Your task to perform on an android device: Set an alarm for 4pm Image 0: 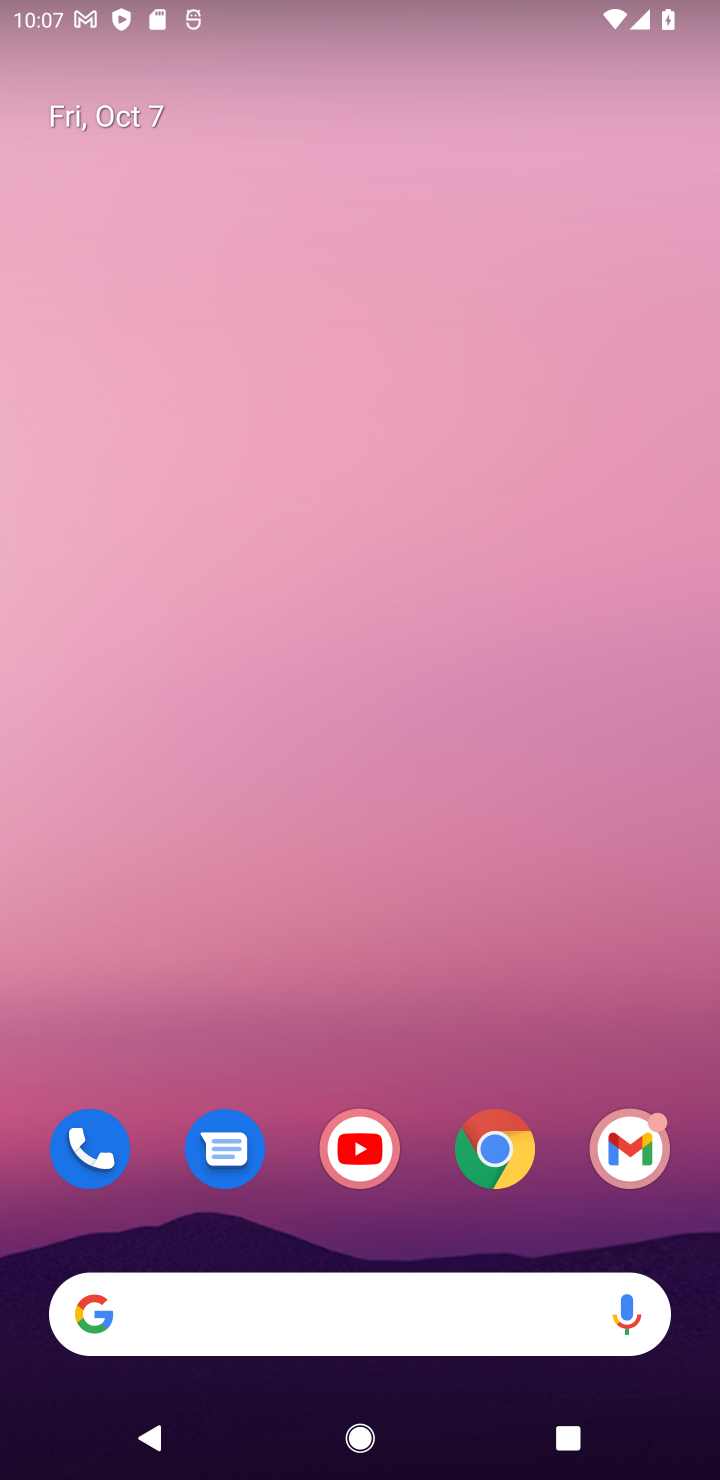
Step 0: drag from (278, 1253) to (248, 341)
Your task to perform on an android device: Set an alarm for 4pm Image 1: 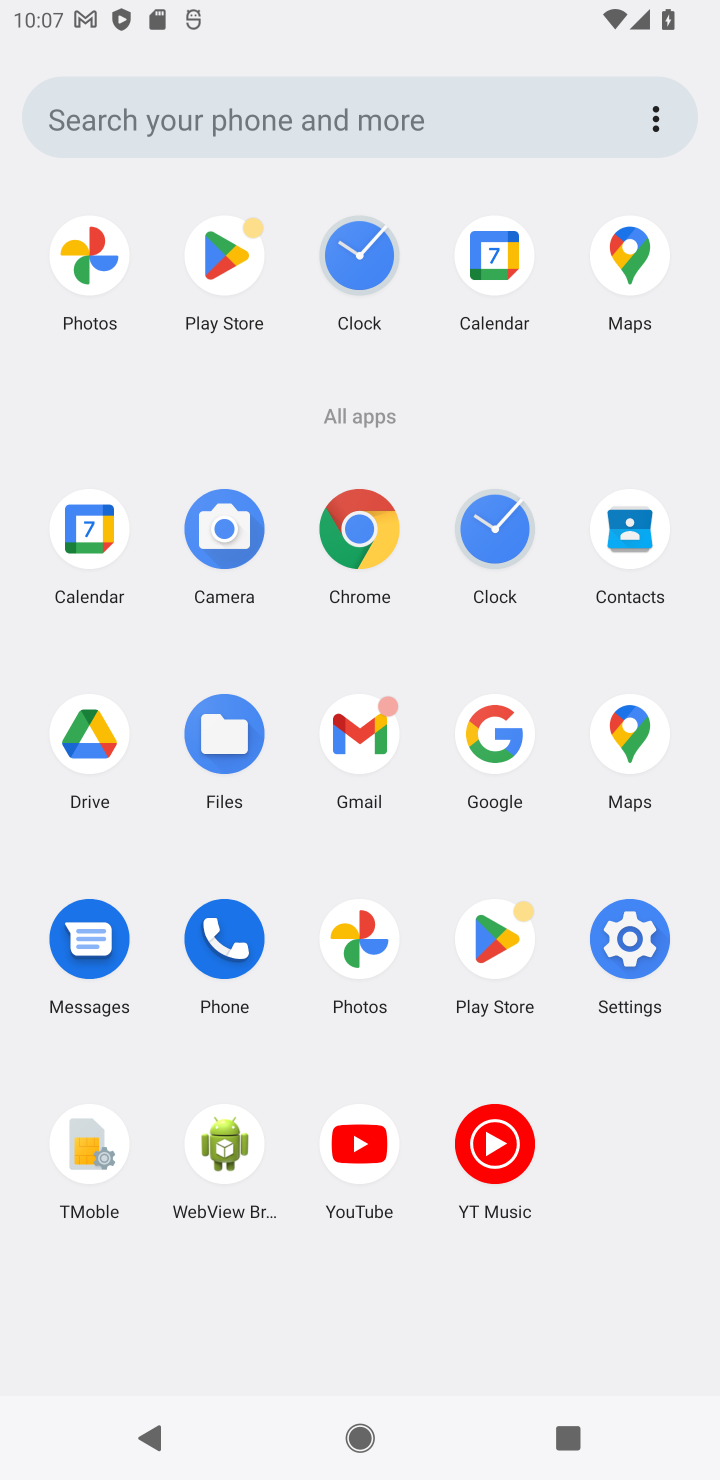
Step 1: click (350, 298)
Your task to perform on an android device: Set an alarm for 4pm Image 2: 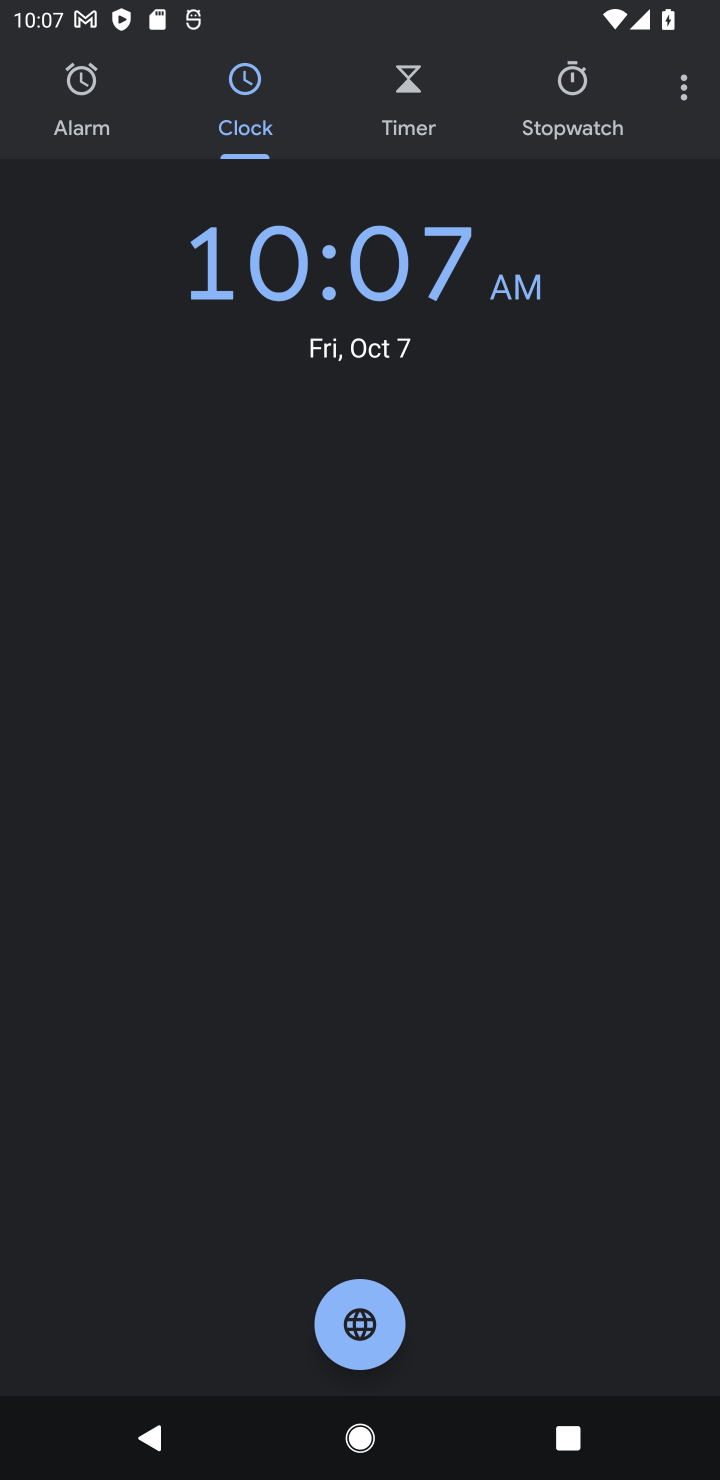
Step 2: click (41, 110)
Your task to perform on an android device: Set an alarm for 4pm Image 3: 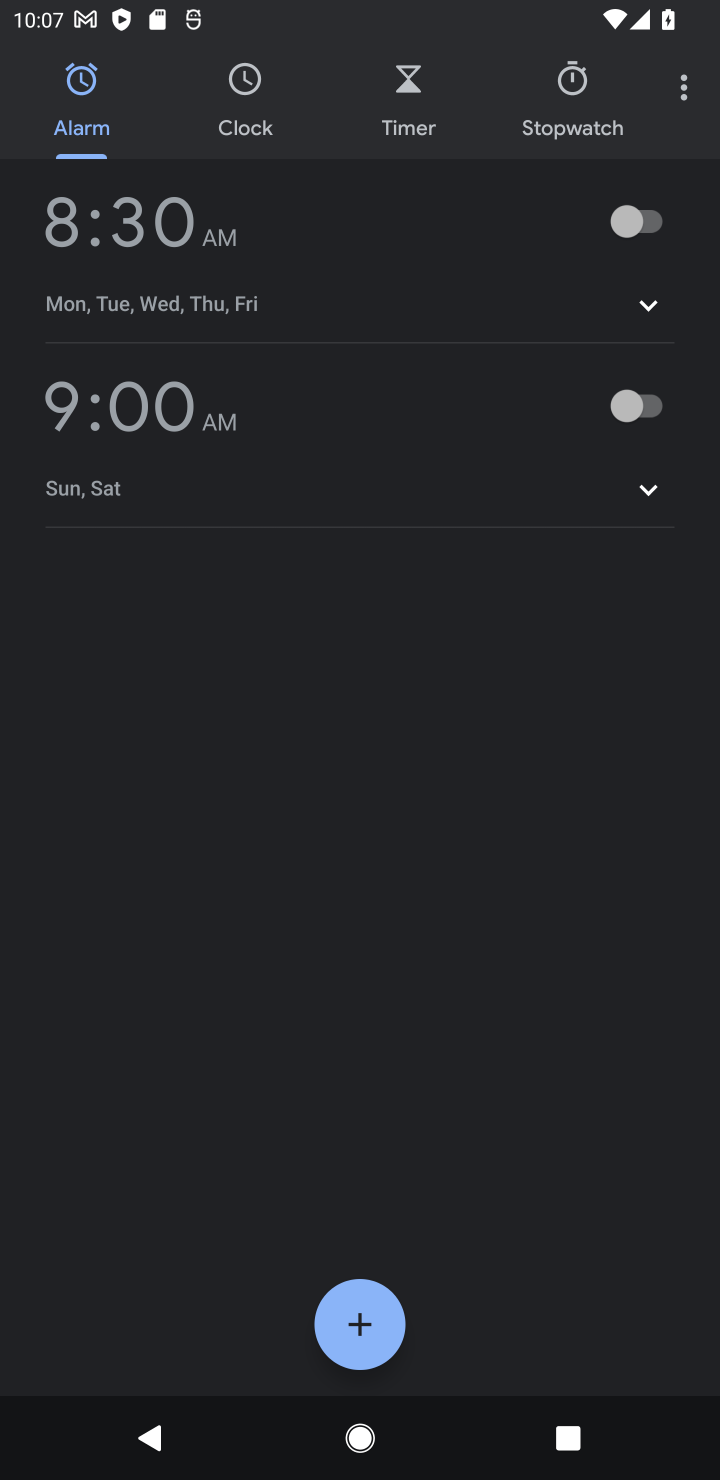
Step 3: click (335, 1313)
Your task to perform on an android device: Set an alarm for 4pm Image 4: 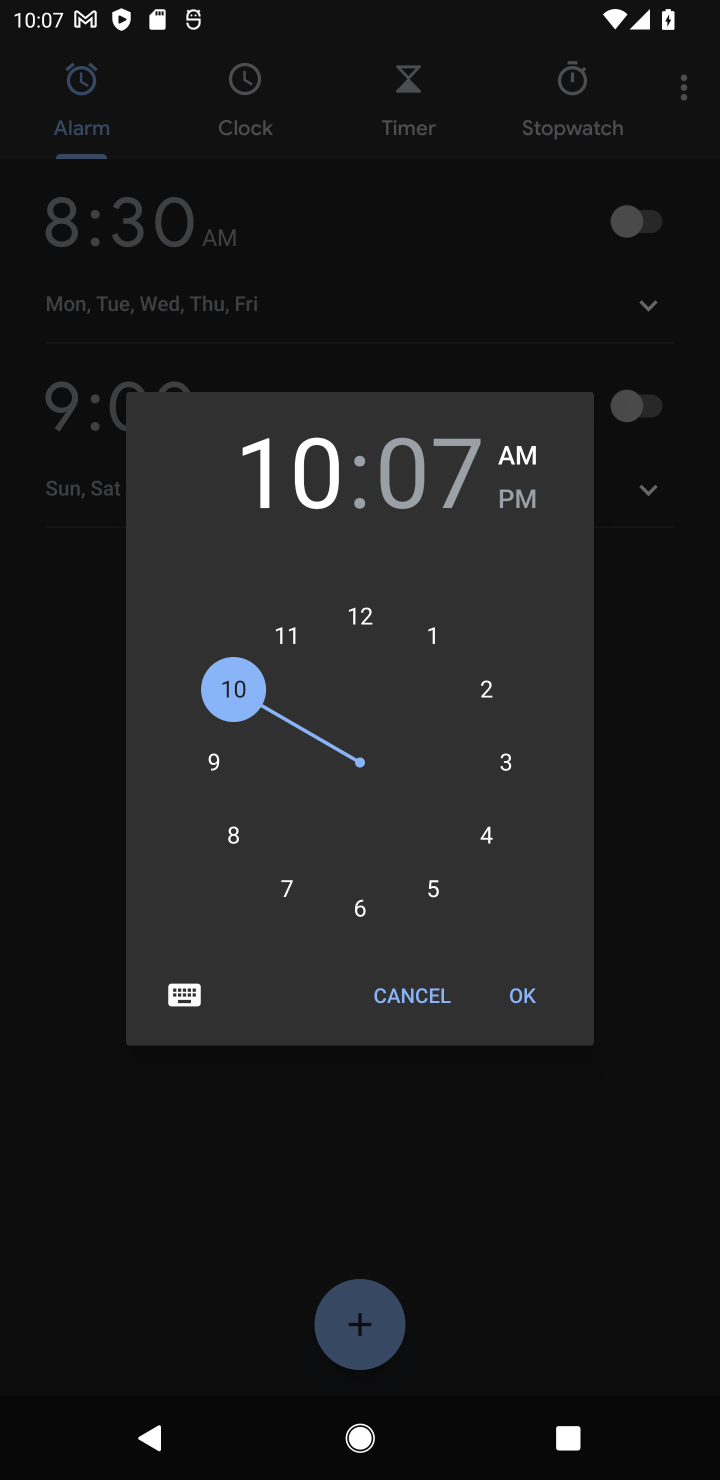
Step 4: drag from (231, 713) to (501, 838)
Your task to perform on an android device: Set an alarm for 4pm Image 5: 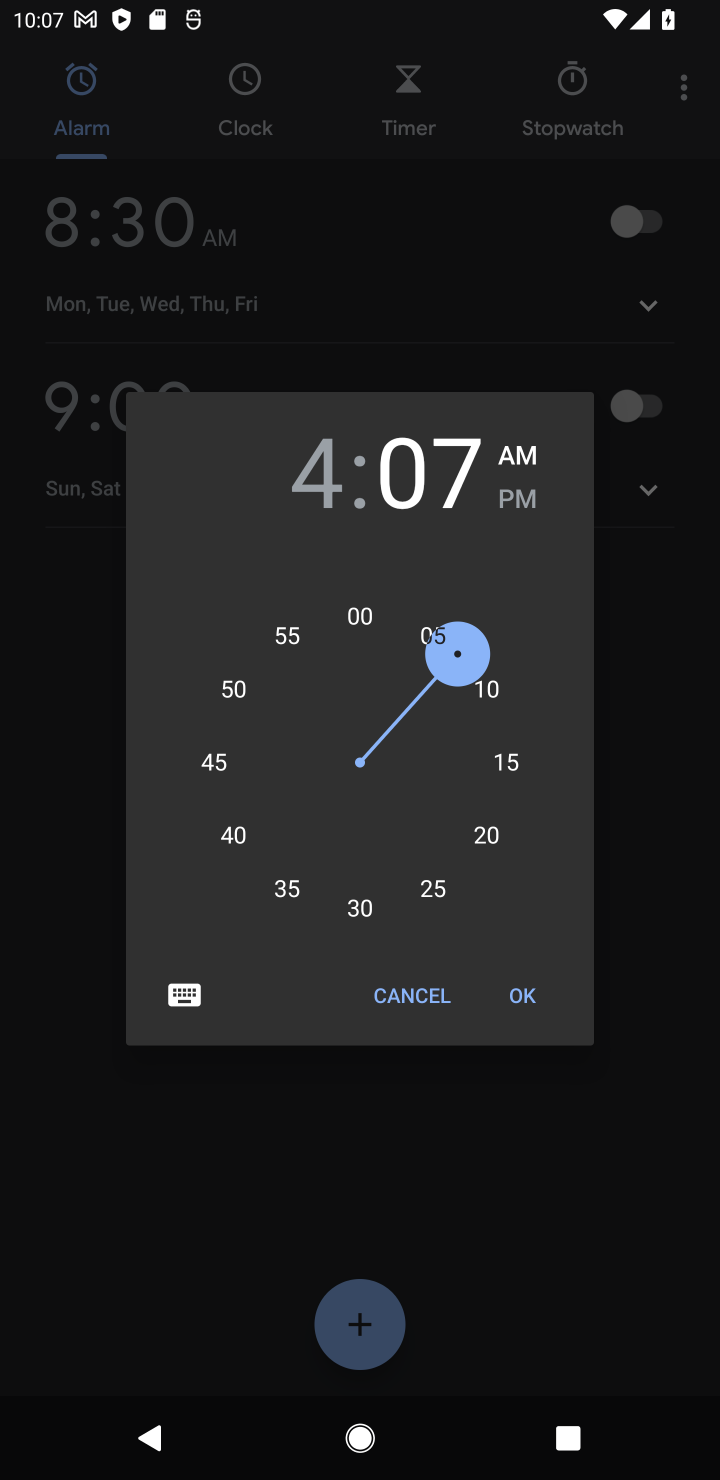
Step 5: click (359, 608)
Your task to perform on an android device: Set an alarm for 4pm Image 6: 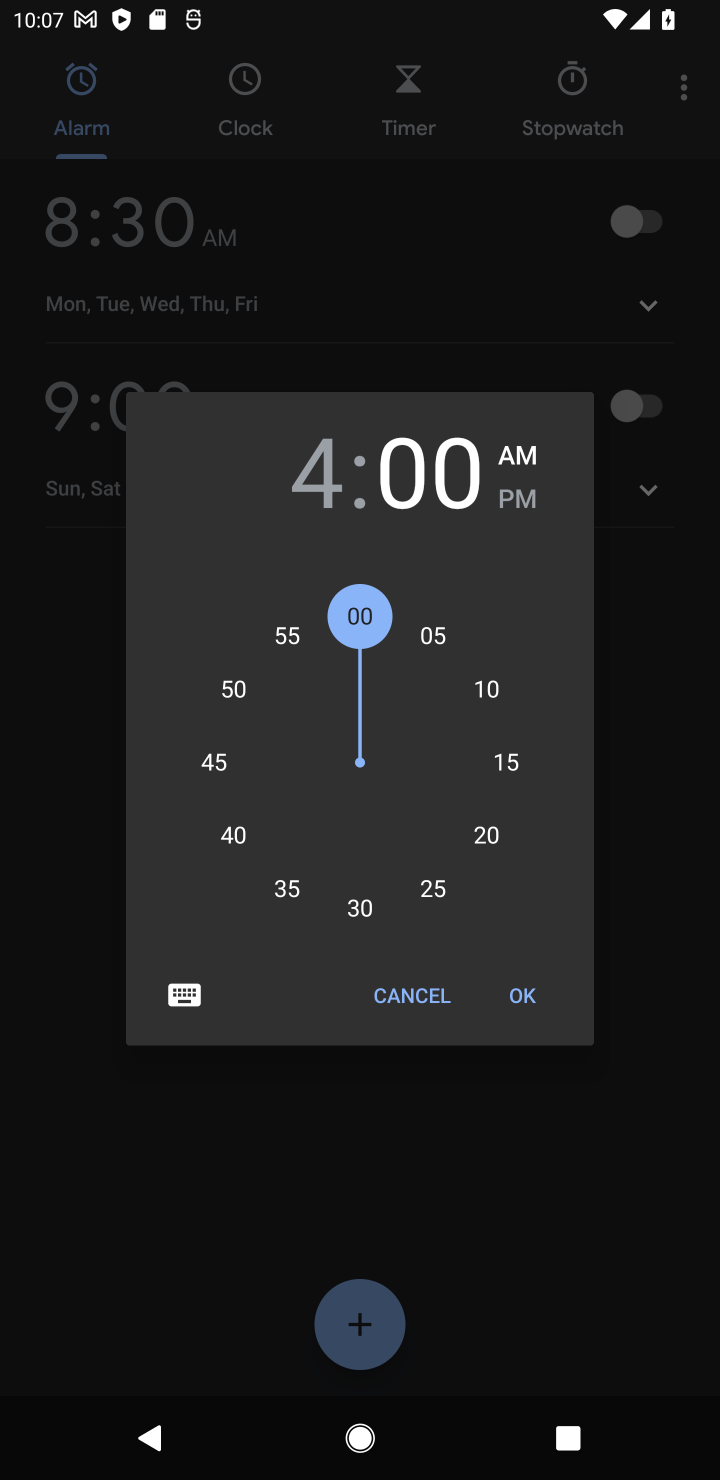
Step 6: click (518, 501)
Your task to perform on an android device: Set an alarm for 4pm Image 7: 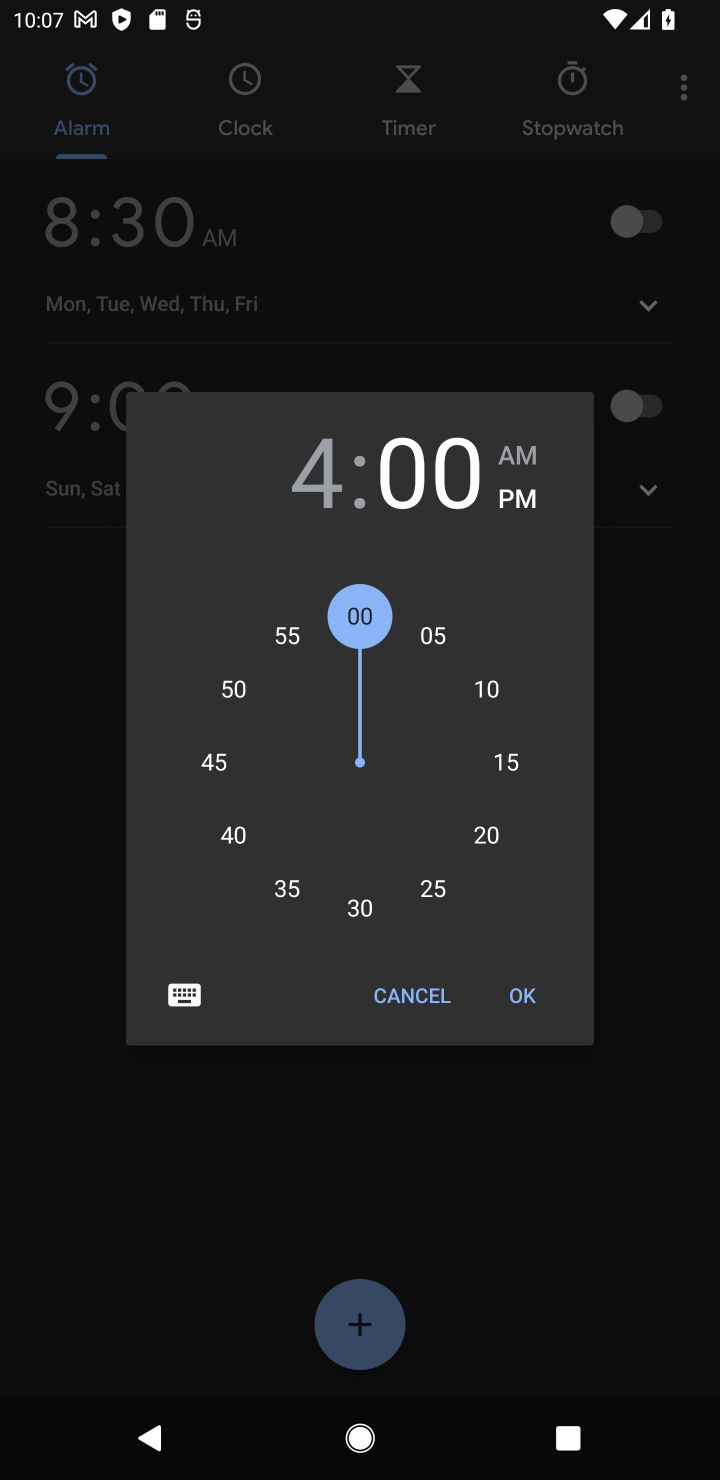
Step 7: click (513, 1003)
Your task to perform on an android device: Set an alarm for 4pm Image 8: 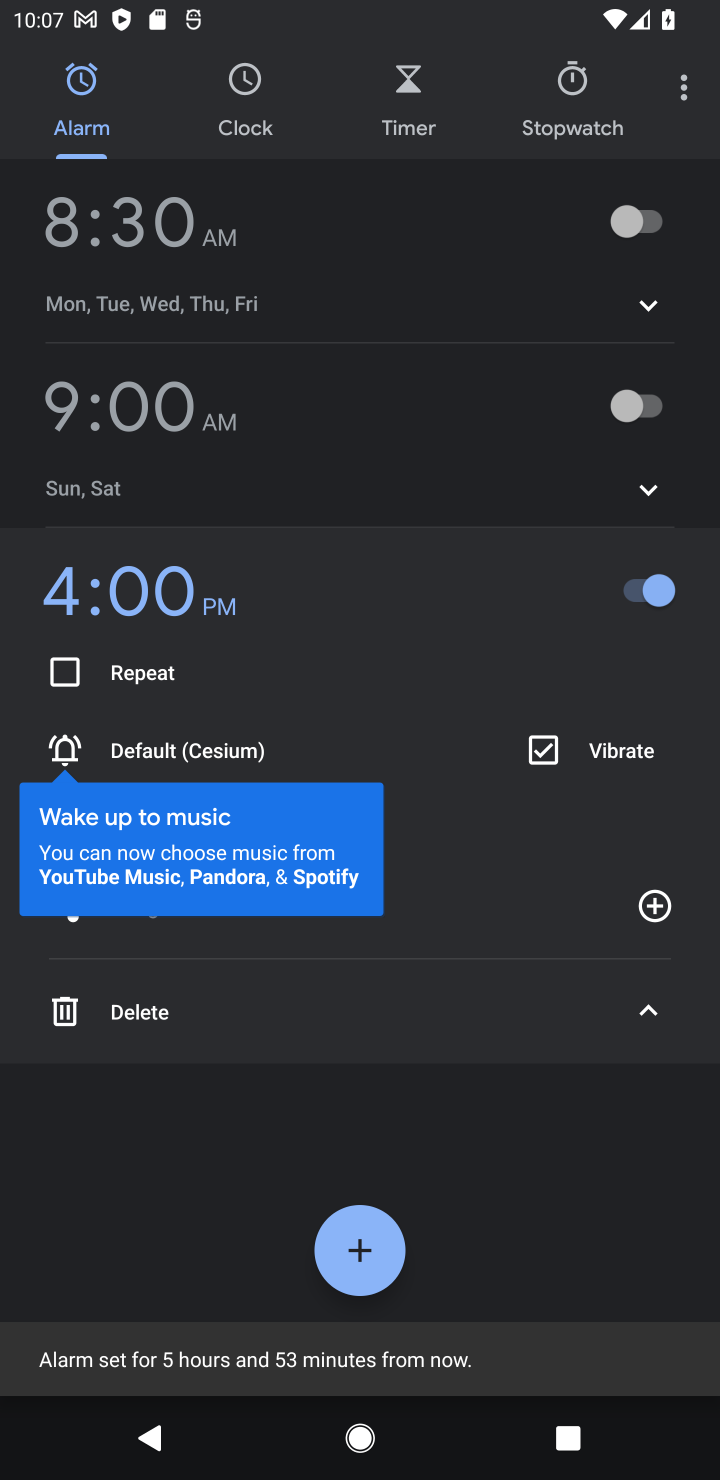
Step 8: task complete